Your task to perform on an android device: toggle sleep mode Image 0: 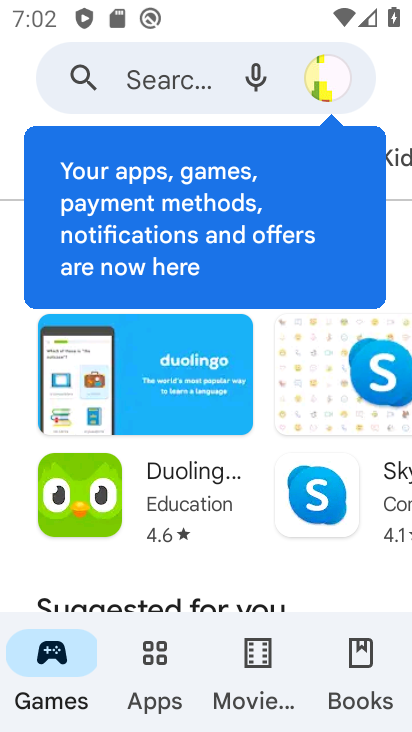
Step 0: press home button
Your task to perform on an android device: toggle sleep mode Image 1: 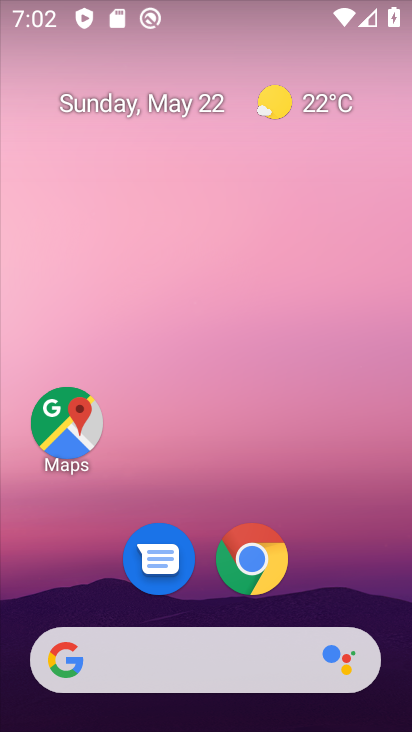
Step 1: drag from (247, 653) to (256, 195)
Your task to perform on an android device: toggle sleep mode Image 2: 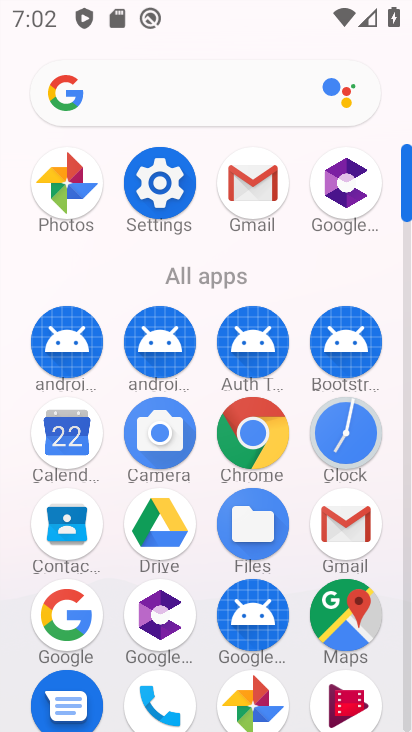
Step 2: click (184, 176)
Your task to perform on an android device: toggle sleep mode Image 3: 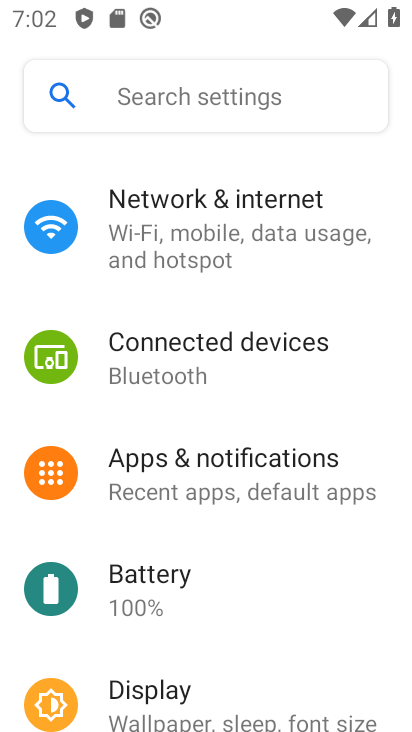
Step 3: click (156, 95)
Your task to perform on an android device: toggle sleep mode Image 4: 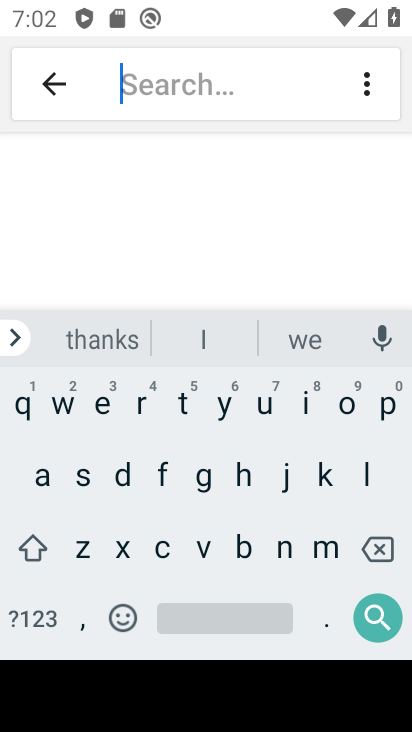
Step 4: click (86, 471)
Your task to perform on an android device: toggle sleep mode Image 5: 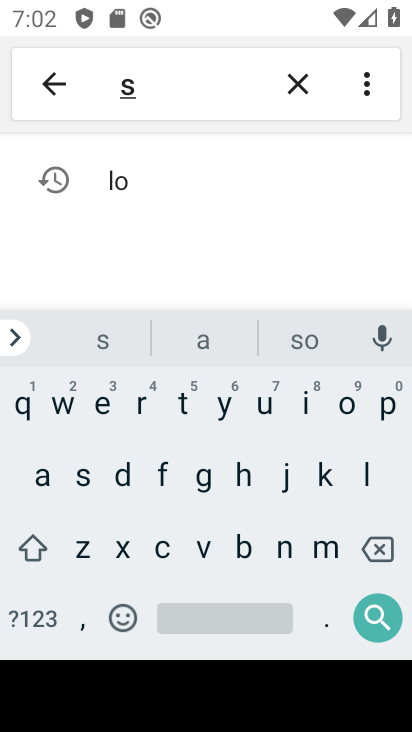
Step 5: click (363, 480)
Your task to perform on an android device: toggle sleep mode Image 6: 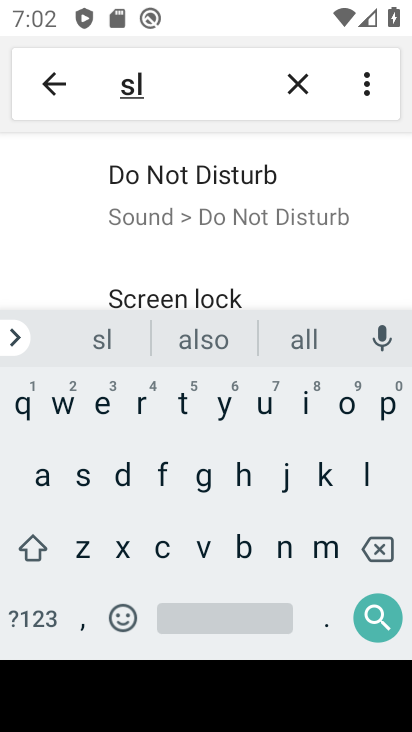
Step 6: click (99, 407)
Your task to perform on an android device: toggle sleep mode Image 7: 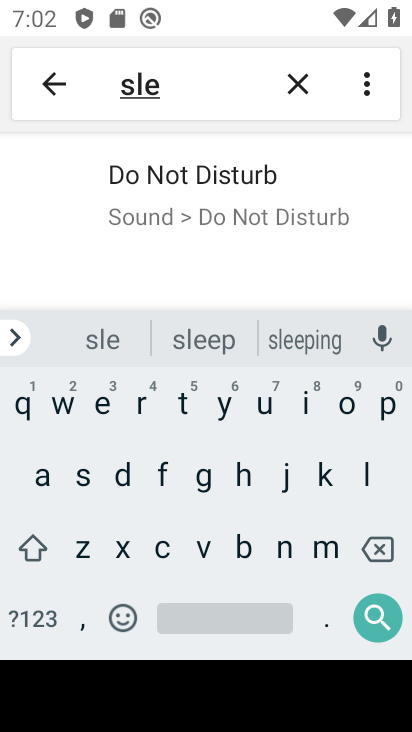
Step 7: click (192, 202)
Your task to perform on an android device: toggle sleep mode Image 8: 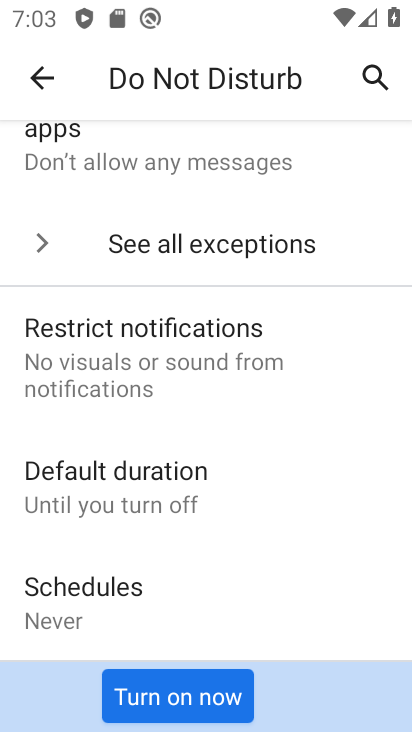
Step 8: task complete